Your task to perform on an android device: Go to privacy settings Image 0: 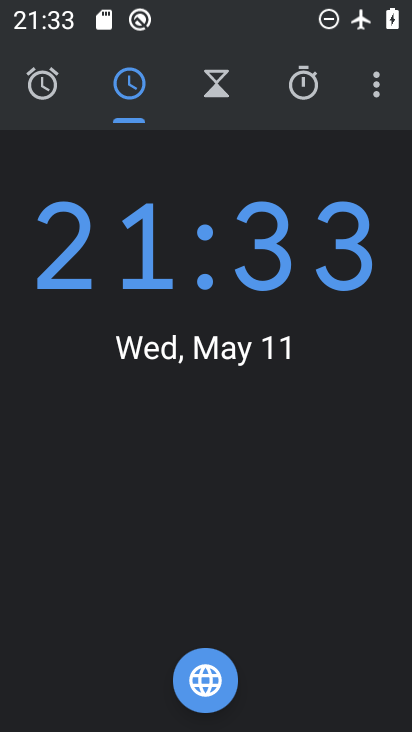
Step 0: press home button
Your task to perform on an android device: Go to privacy settings Image 1: 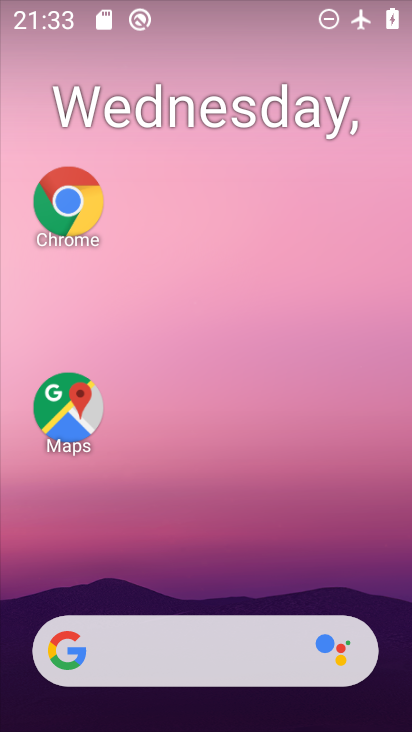
Step 1: drag from (180, 597) to (153, 182)
Your task to perform on an android device: Go to privacy settings Image 2: 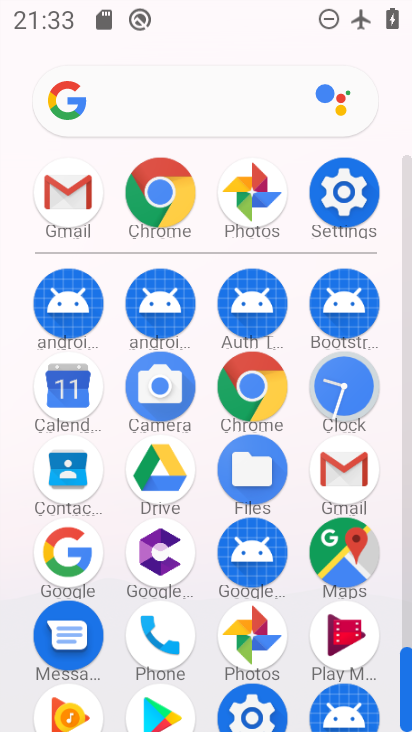
Step 2: click (325, 189)
Your task to perform on an android device: Go to privacy settings Image 3: 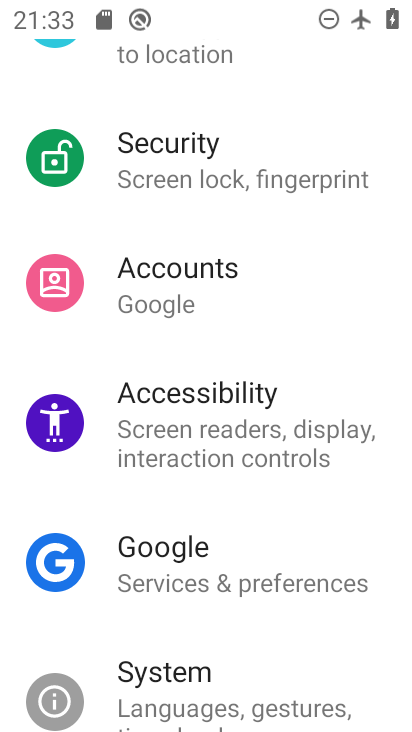
Step 3: click (211, 446)
Your task to perform on an android device: Go to privacy settings Image 4: 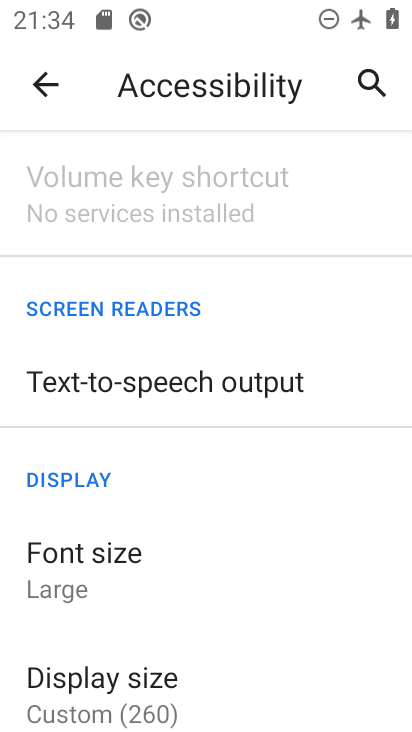
Step 4: click (51, 73)
Your task to perform on an android device: Go to privacy settings Image 5: 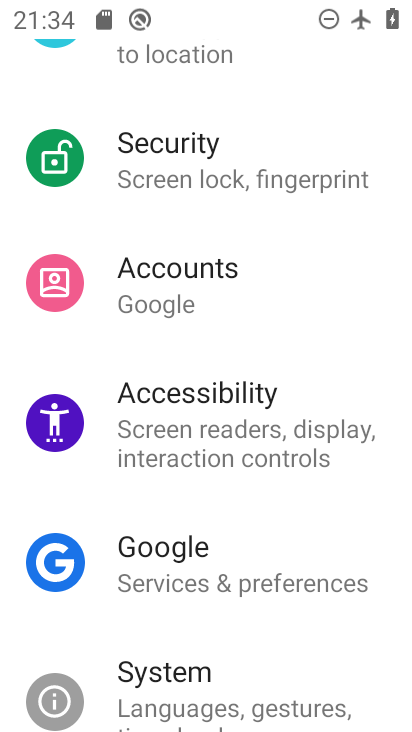
Step 5: drag from (198, 186) to (182, 500)
Your task to perform on an android device: Go to privacy settings Image 6: 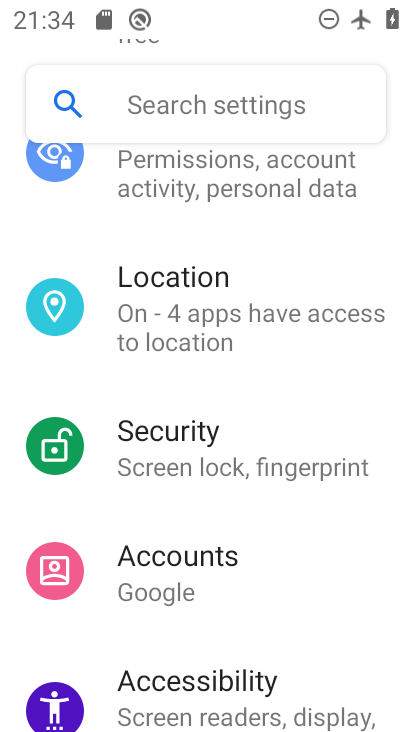
Step 6: drag from (153, 201) to (150, 619)
Your task to perform on an android device: Go to privacy settings Image 7: 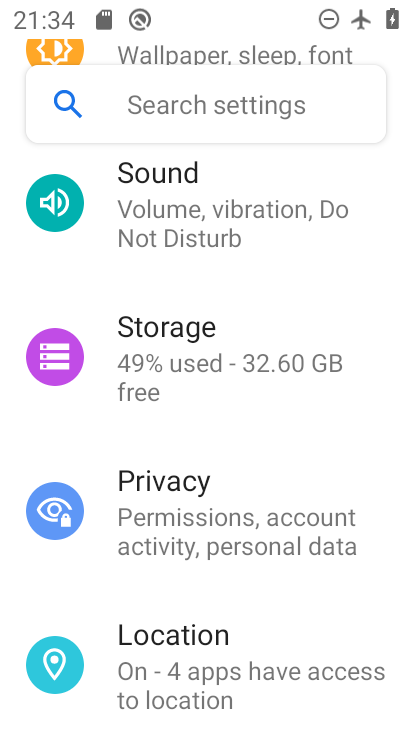
Step 7: click (149, 538)
Your task to perform on an android device: Go to privacy settings Image 8: 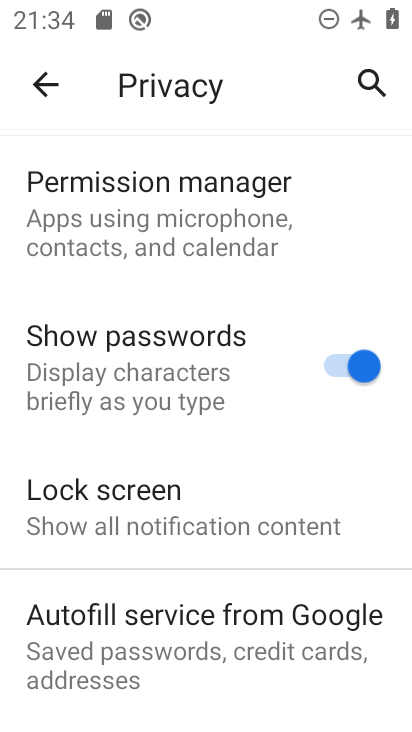
Step 8: task complete